Your task to perform on an android device: Go to Google maps Image 0: 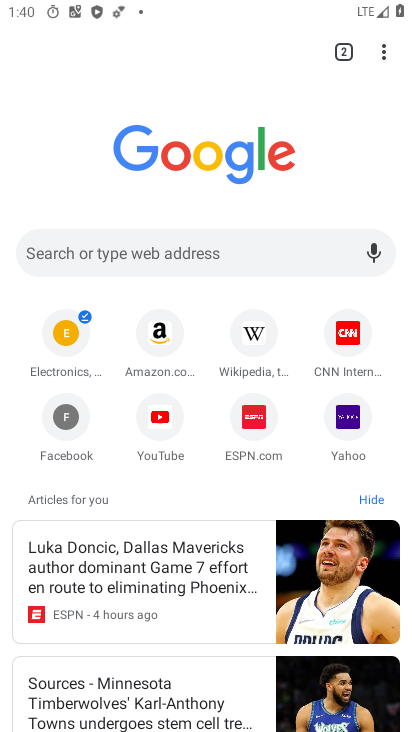
Step 0: press home button
Your task to perform on an android device: Go to Google maps Image 1: 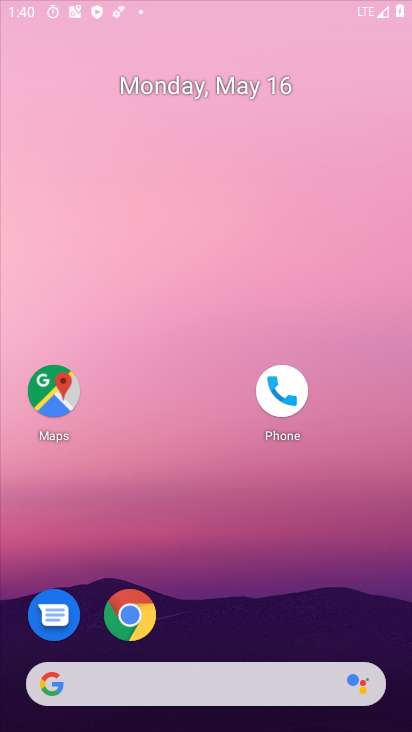
Step 1: drag from (250, 639) to (239, 46)
Your task to perform on an android device: Go to Google maps Image 2: 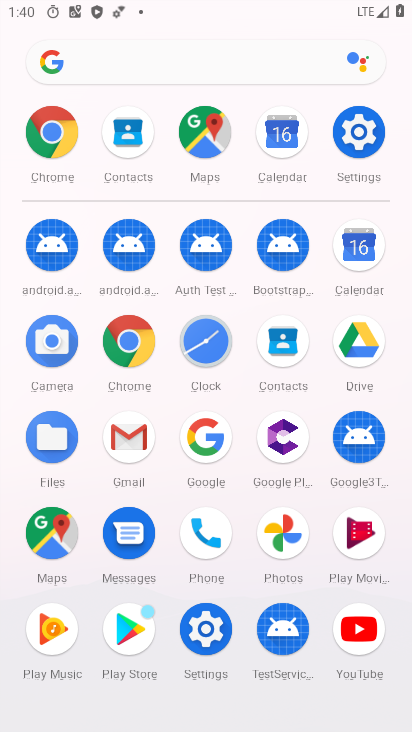
Step 2: click (49, 532)
Your task to perform on an android device: Go to Google maps Image 3: 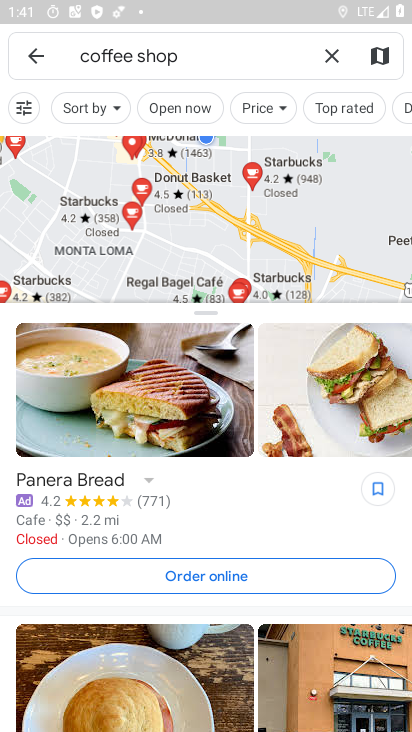
Step 3: task complete